Your task to perform on an android device: Check the weather Image 0: 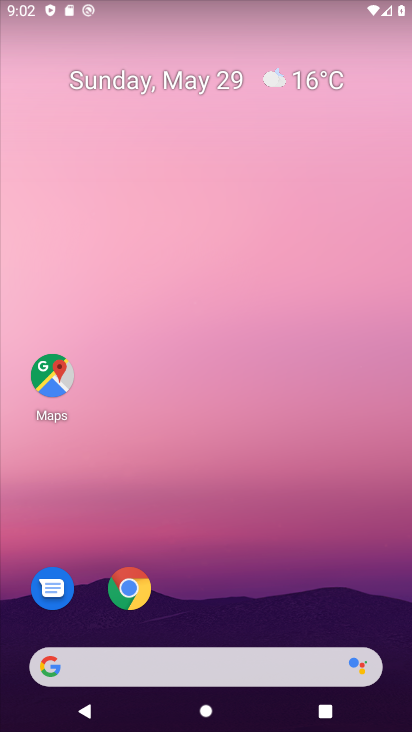
Step 0: drag from (284, 600) to (282, 122)
Your task to perform on an android device: Check the weather Image 1: 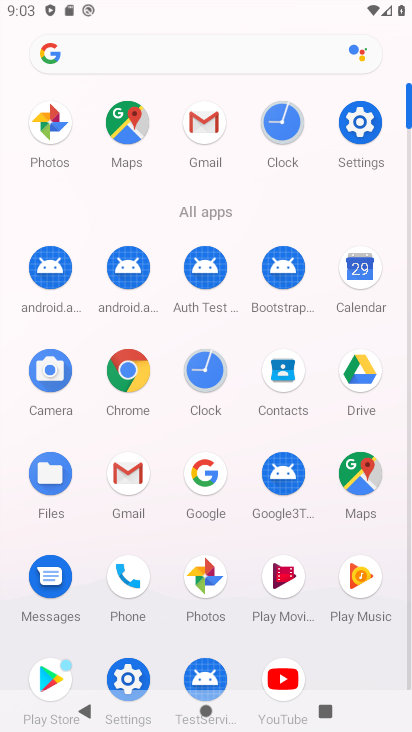
Step 1: click (202, 472)
Your task to perform on an android device: Check the weather Image 2: 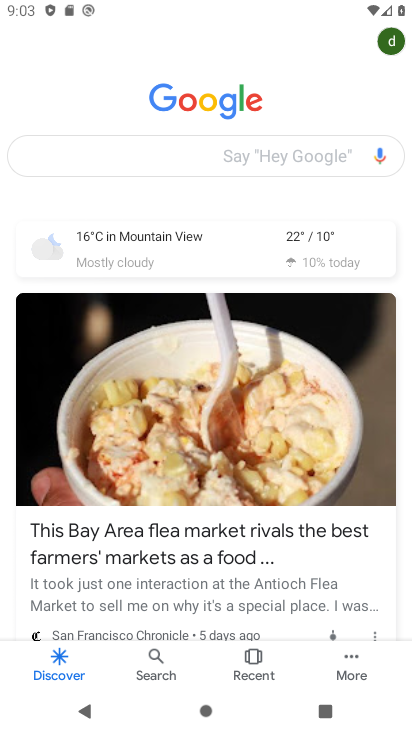
Step 2: click (201, 246)
Your task to perform on an android device: Check the weather Image 3: 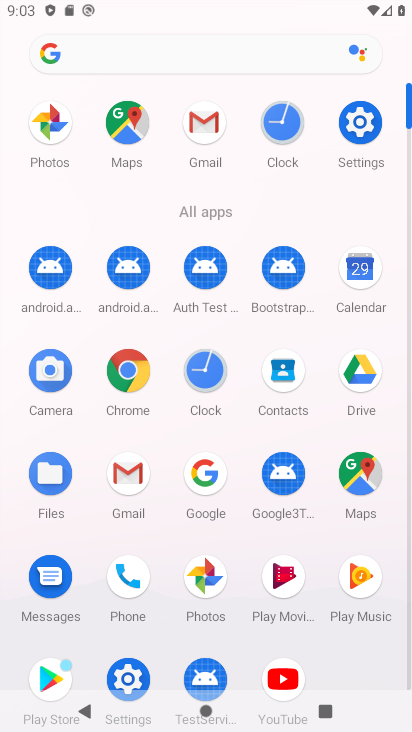
Step 3: task complete